Your task to perform on an android device: turn smart compose on in the gmail app Image 0: 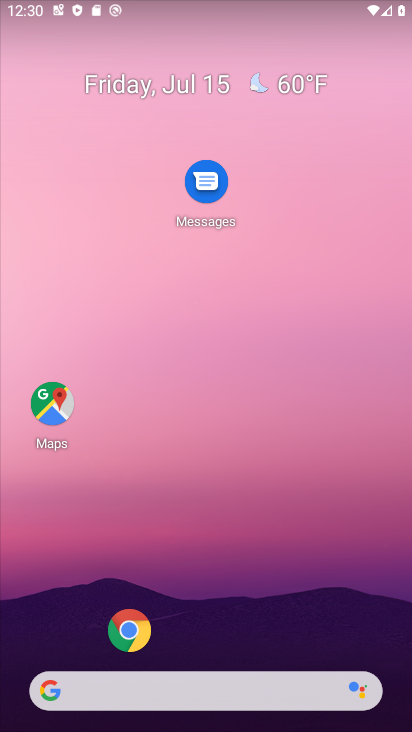
Step 0: drag from (95, 474) to (152, 206)
Your task to perform on an android device: turn smart compose on in the gmail app Image 1: 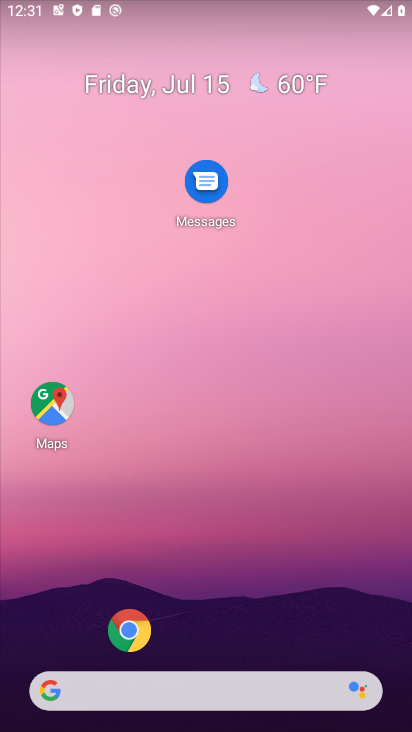
Step 1: drag from (41, 713) to (184, 89)
Your task to perform on an android device: turn smart compose on in the gmail app Image 2: 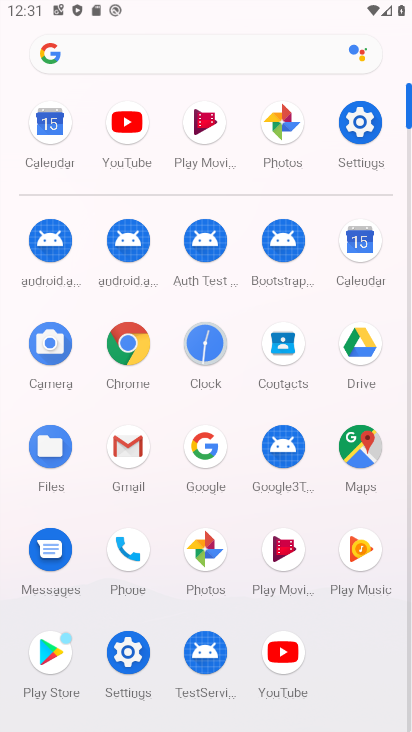
Step 2: click (134, 442)
Your task to perform on an android device: turn smart compose on in the gmail app Image 3: 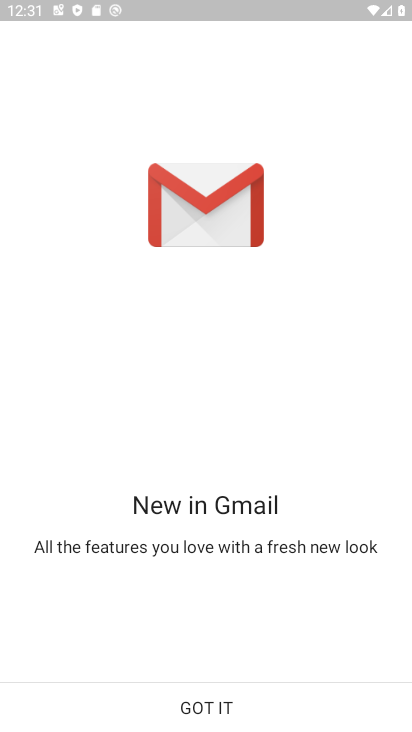
Step 3: click (219, 721)
Your task to perform on an android device: turn smart compose on in the gmail app Image 4: 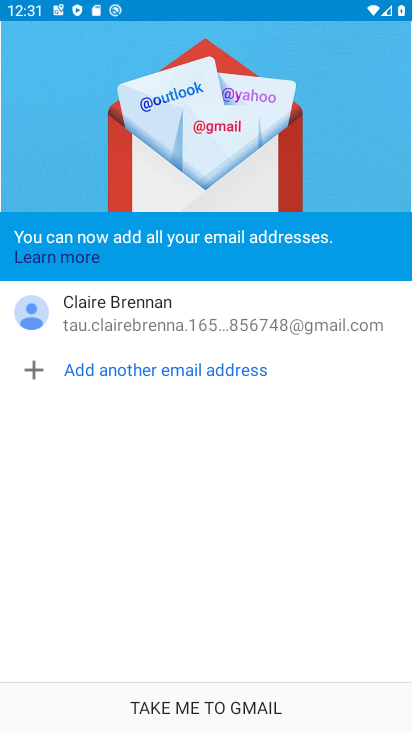
Step 4: click (210, 713)
Your task to perform on an android device: turn smart compose on in the gmail app Image 5: 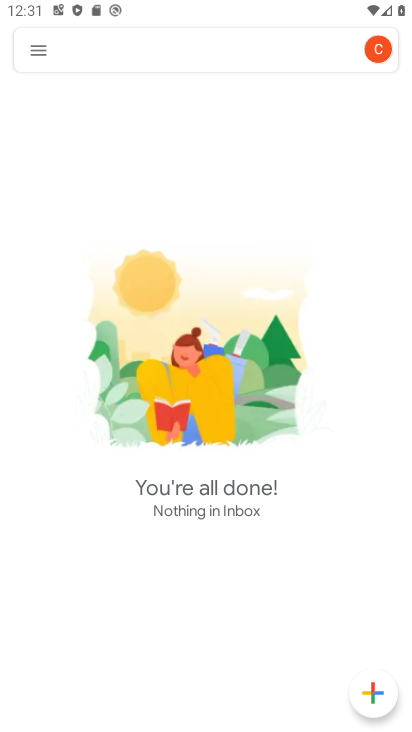
Step 5: click (38, 29)
Your task to perform on an android device: turn smart compose on in the gmail app Image 6: 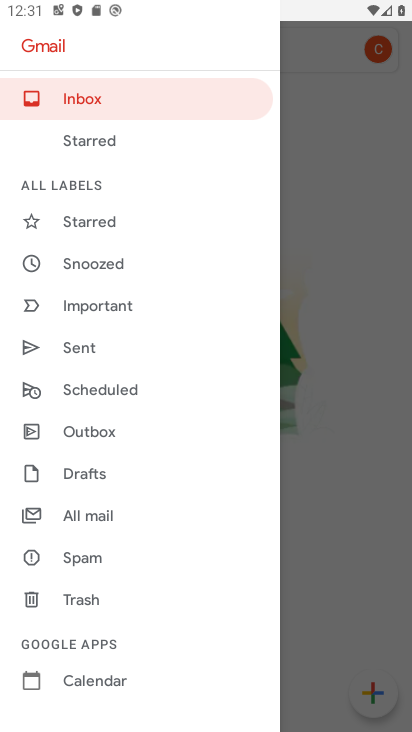
Step 6: drag from (155, 700) to (179, 350)
Your task to perform on an android device: turn smart compose on in the gmail app Image 7: 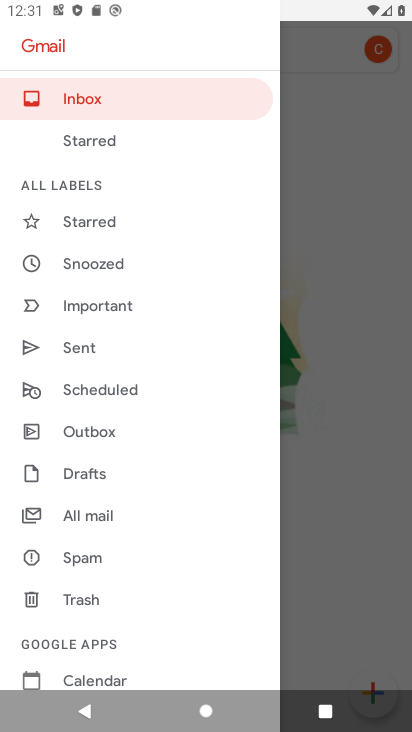
Step 7: drag from (189, 609) to (197, 403)
Your task to perform on an android device: turn smart compose on in the gmail app Image 8: 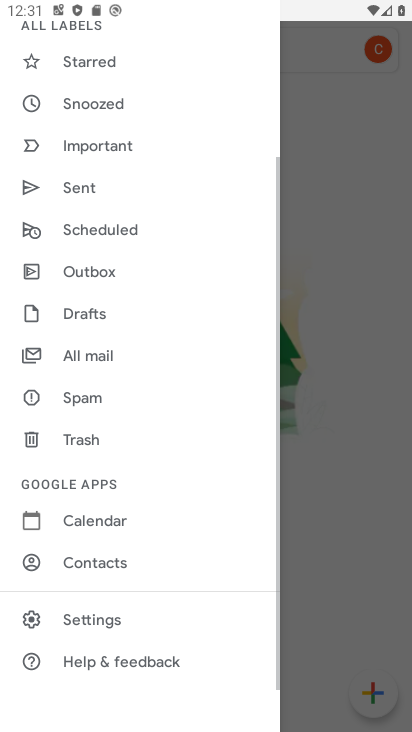
Step 8: click (92, 621)
Your task to perform on an android device: turn smart compose on in the gmail app Image 9: 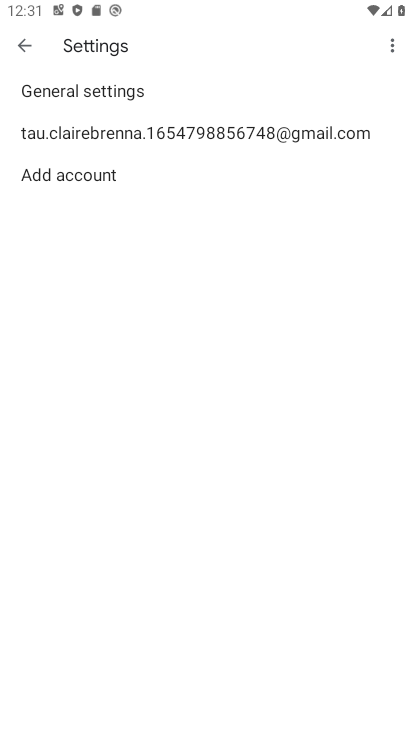
Step 9: click (143, 134)
Your task to perform on an android device: turn smart compose on in the gmail app Image 10: 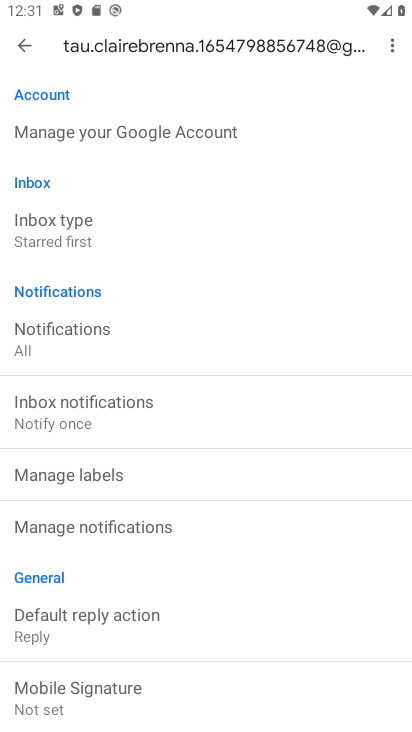
Step 10: task complete